Your task to perform on an android device: Go to settings Image 0: 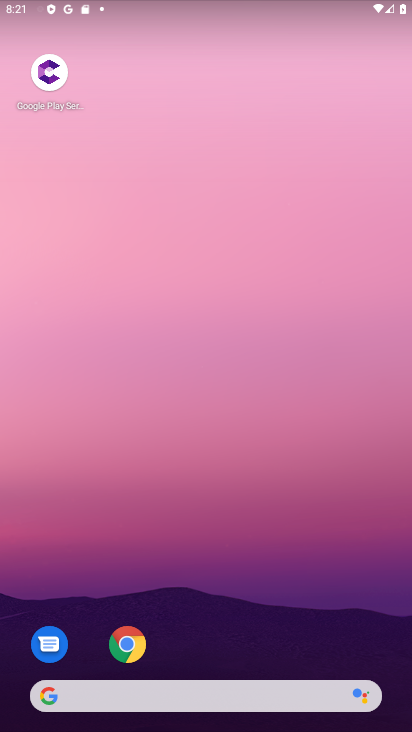
Step 0: drag from (257, 558) to (249, 200)
Your task to perform on an android device: Go to settings Image 1: 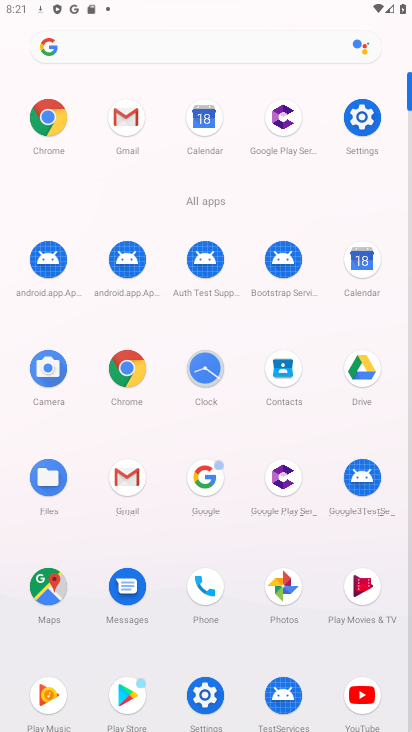
Step 1: click (372, 110)
Your task to perform on an android device: Go to settings Image 2: 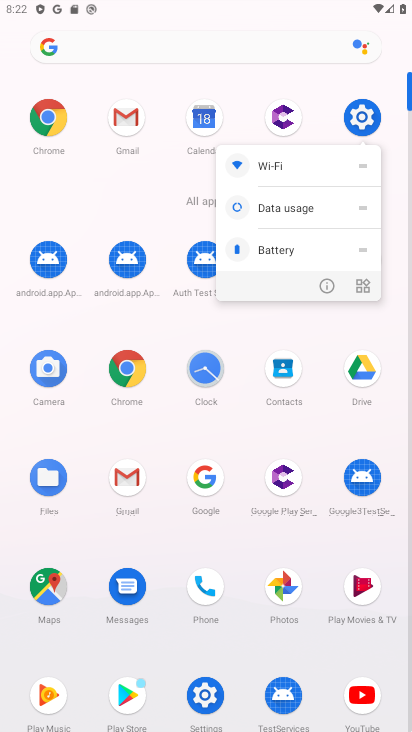
Step 2: click (215, 707)
Your task to perform on an android device: Go to settings Image 3: 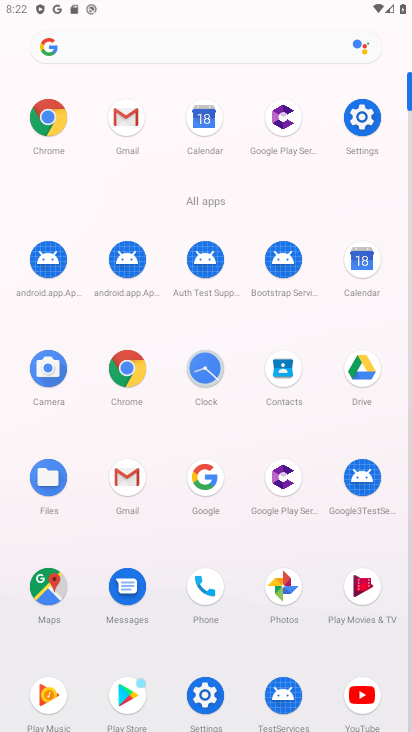
Step 3: click (208, 704)
Your task to perform on an android device: Go to settings Image 4: 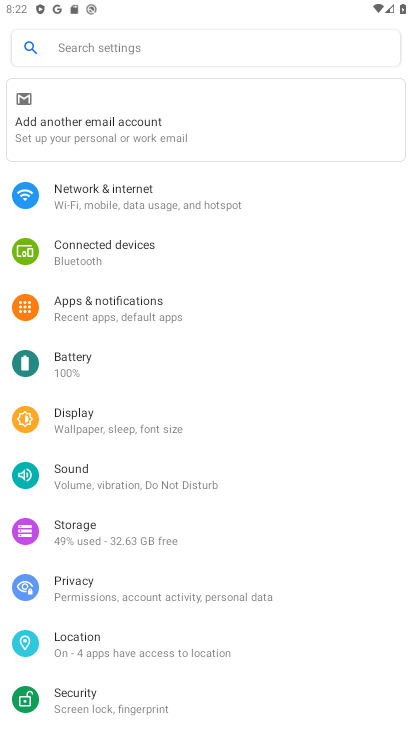
Step 4: task complete